Your task to perform on an android device: Clear the cart on newegg.com. Image 0: 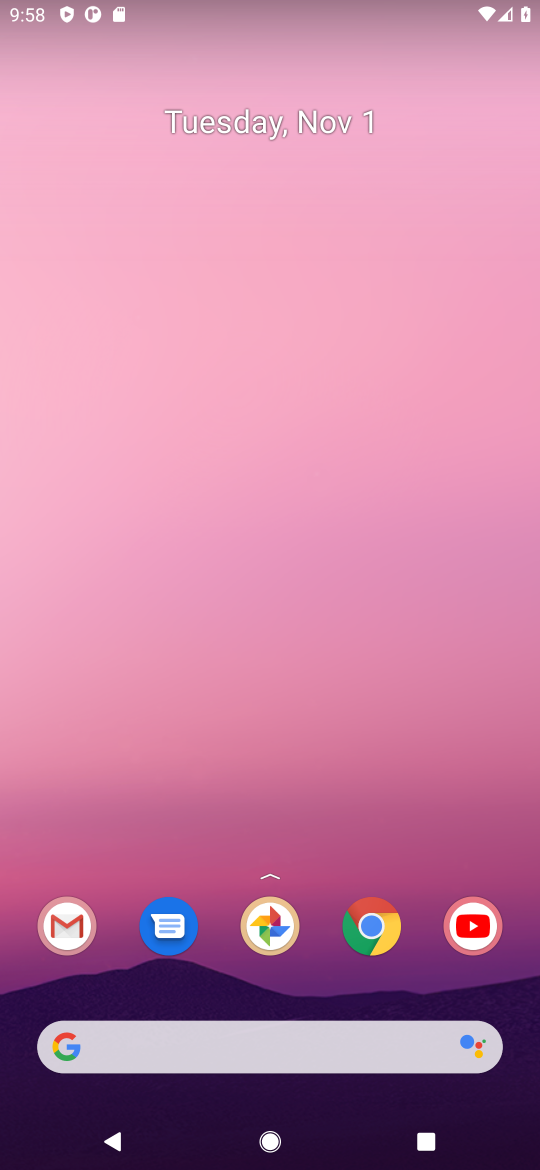
Step 0: click (360, 924)
Your task to perform on an android device: Clear the cart on newegg.com. Image 1: 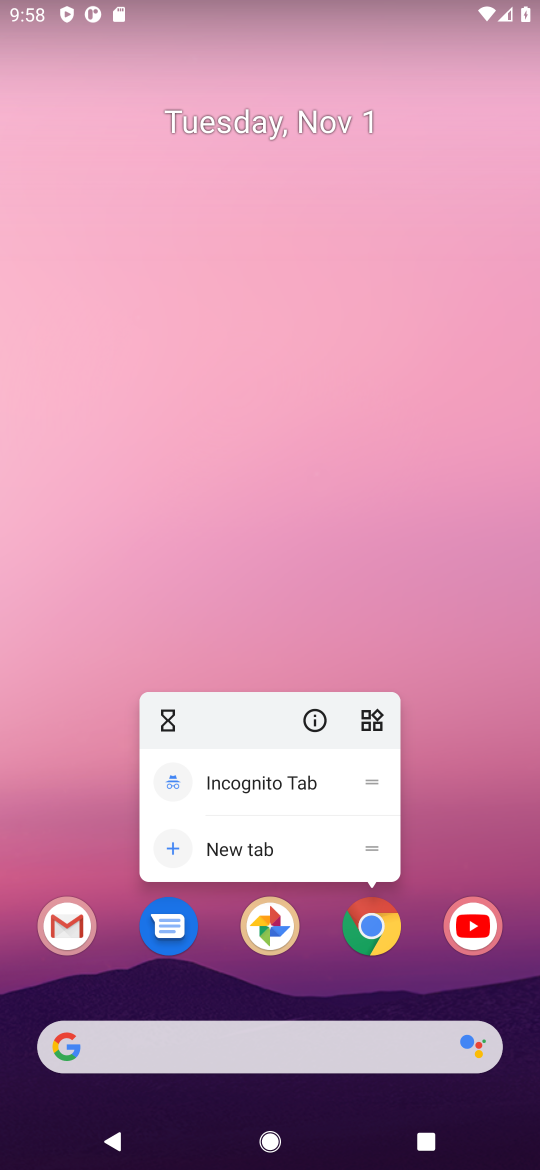
Step 1: click (362, 930)
Your task to perform on an android device: Clear the cart on newegg.com. Image 2: 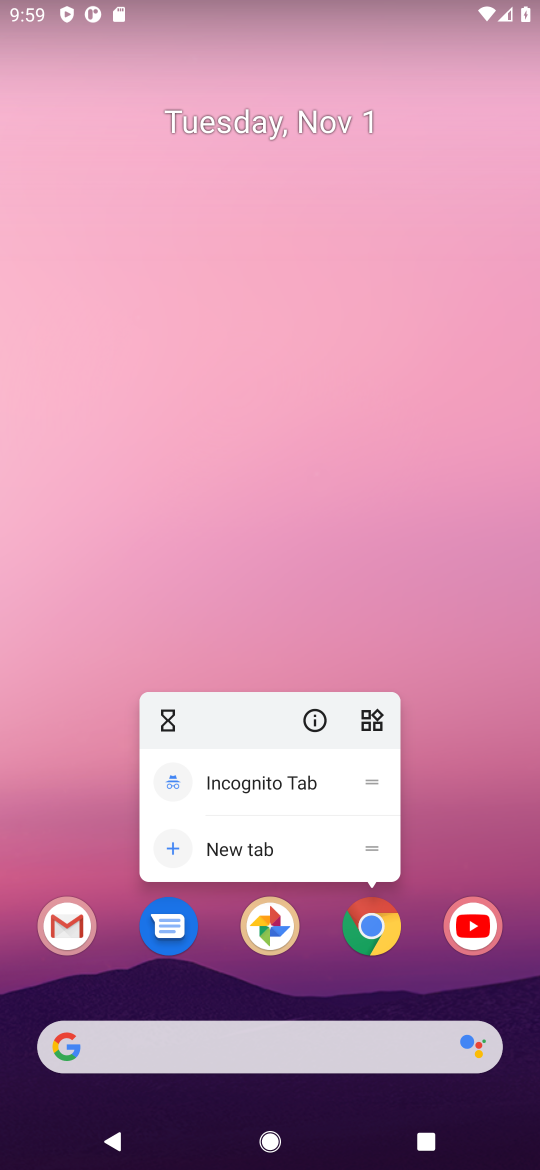
Step 2: click (359, 924)
Your task to perform on an android device: Clear the cart on newegg.com. Image 3: 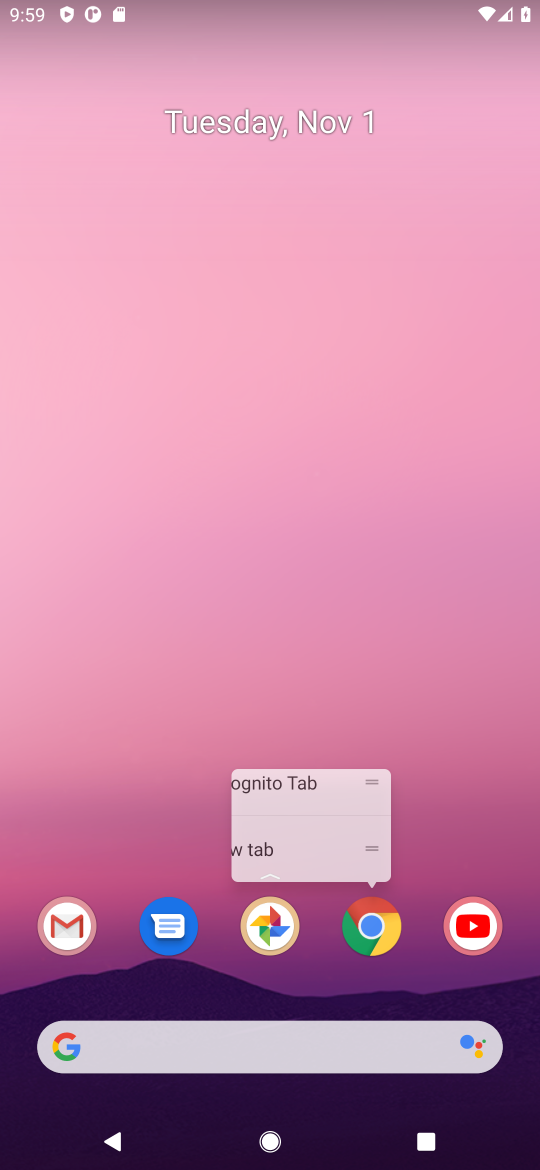
Step 3: click (364, 925)
Your task to perform on an android device: Clear the cart on newegg.com. Image 4: 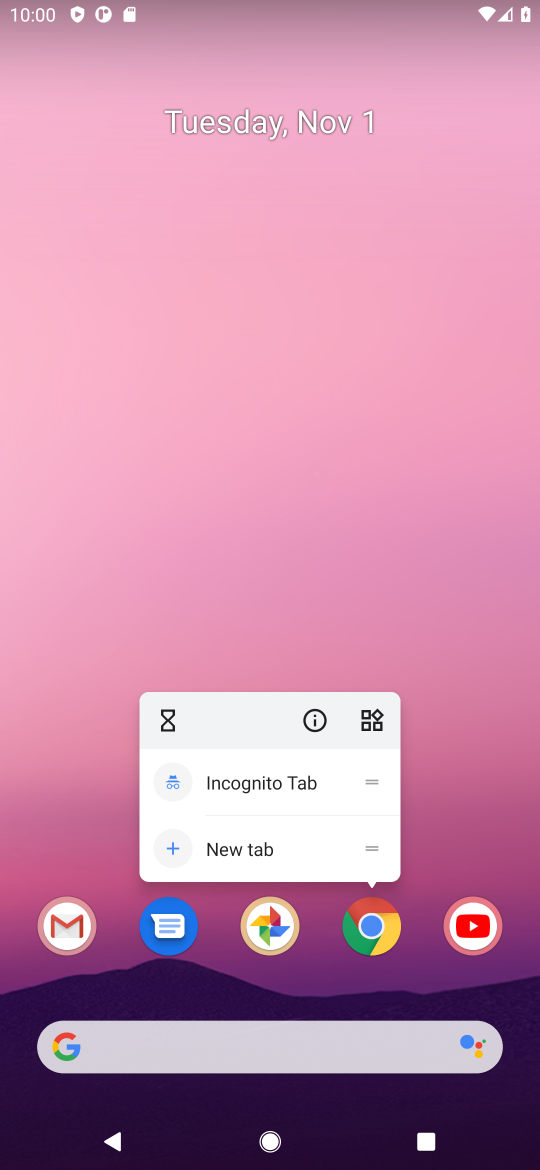
Step 4: click (176, 792)
Your task to perform on an android device: Clear the cart on newegg.com. Image 5: 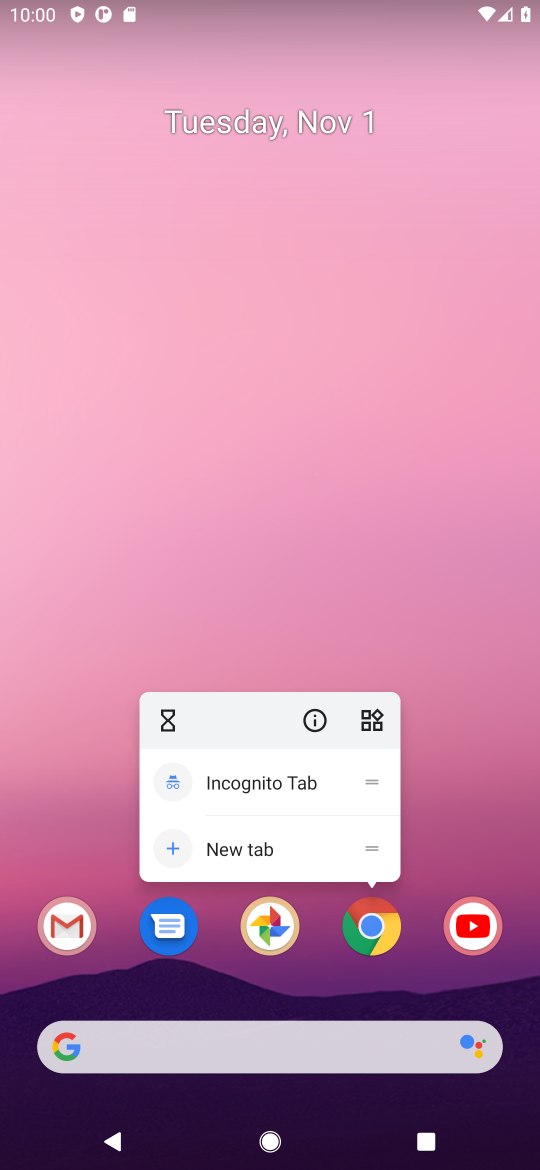
Step 5: click (370, 926)
Your task to perform on an android device: Clear the cart on newegg.com. Image 6: 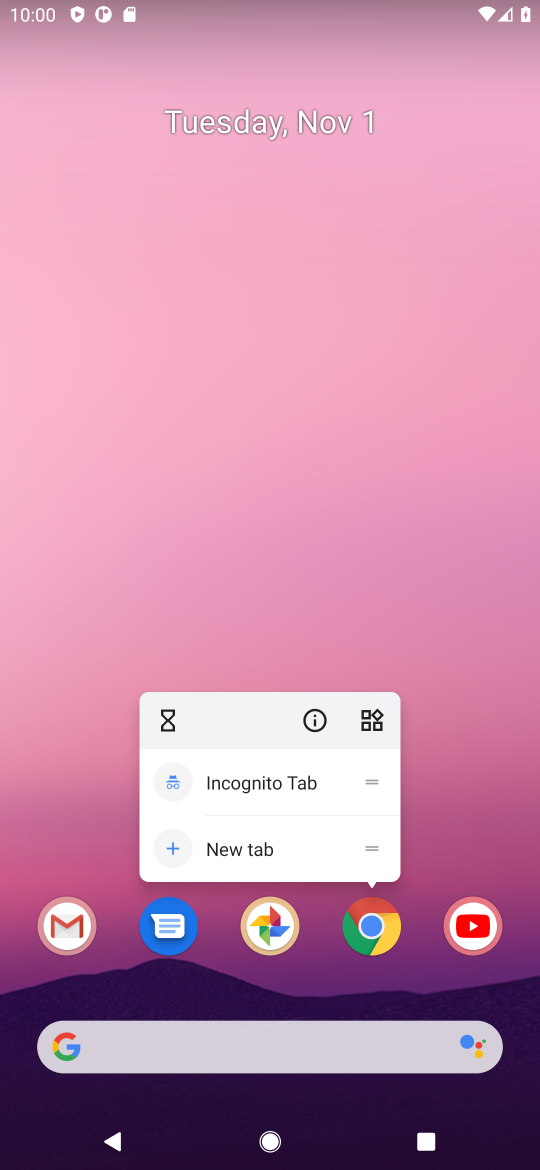
Step 6: press home button
Your task to perform on an android device: Clear the cart on newegg.com. Image 7: 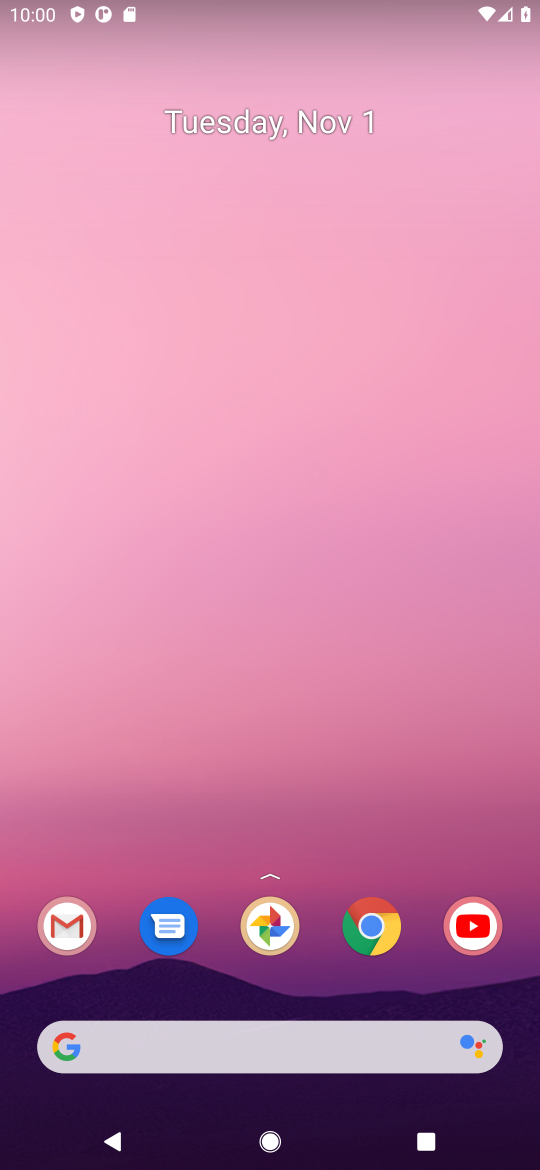
Step 7: press home button
Your task to perform on an android device: Clear the cart on newegg.com. Image 8: 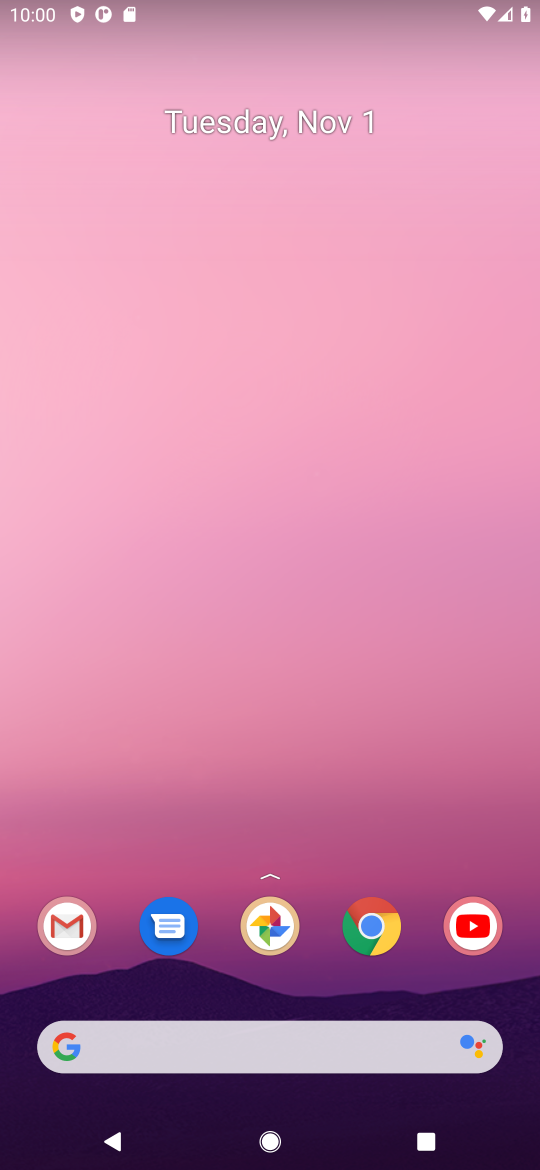
Step 8: press home button
Your task to perform on an android device: Clear the cart on newegg.com. Image 9: 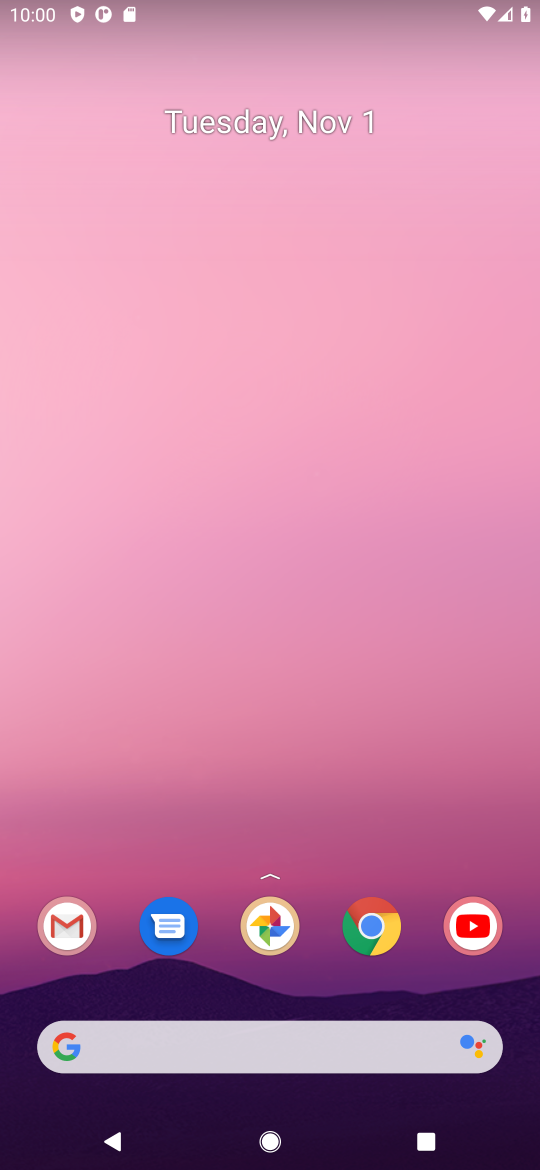
Step 9: press home button
Your task to perform on an android device: Clear the cart on newegg.com. Image 10: 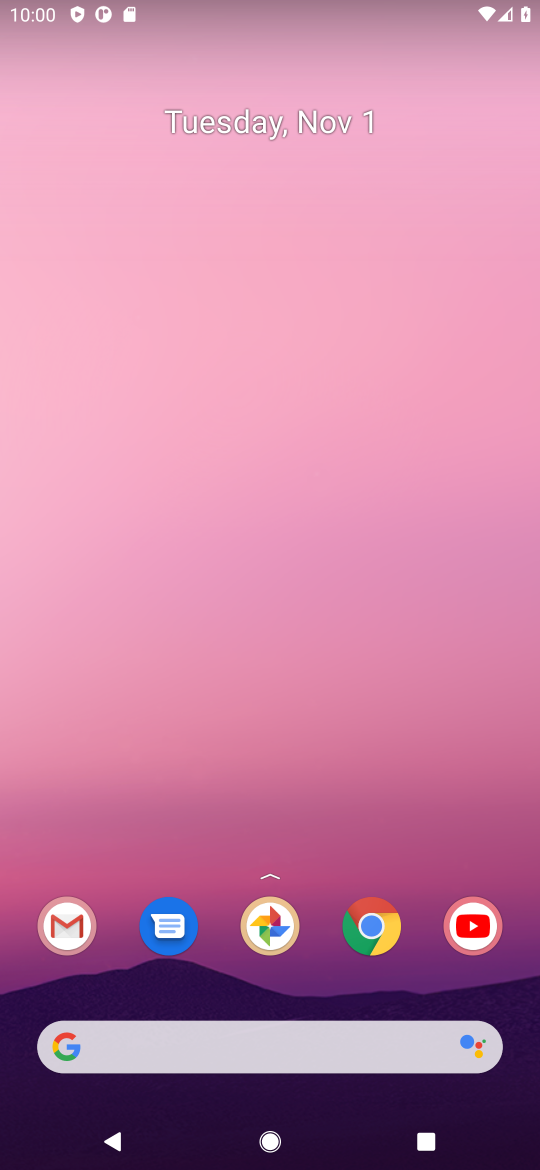
Step 10: click (382, 939)
Your task to perform on an android device: Clear the cart on newegg.com. Image 11: 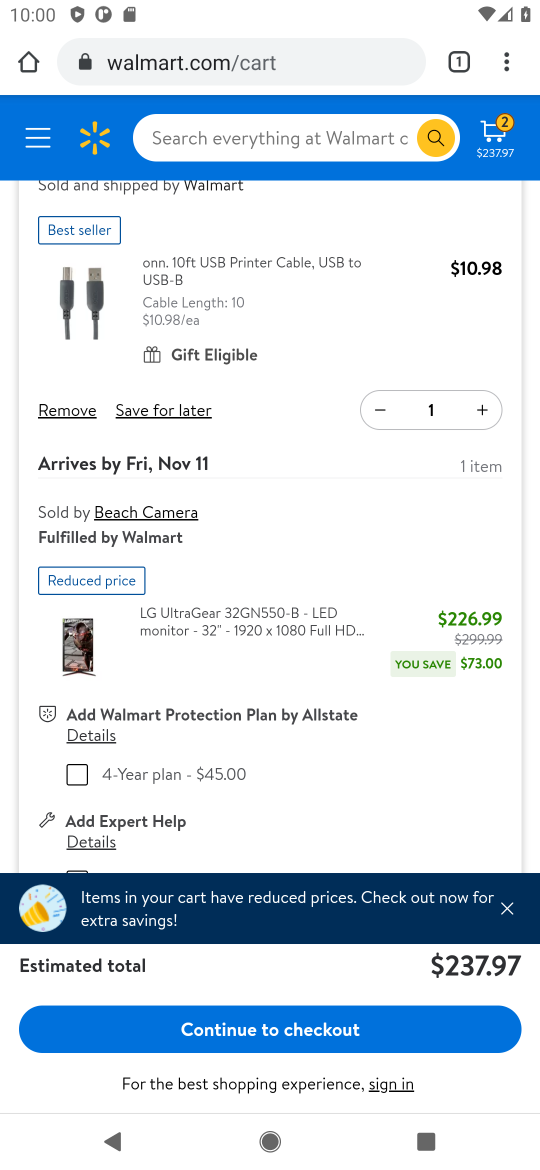
Step 11: click (161, 67)
Your task to perform on an android device: Clear the cart on newegg.com. Image 12: 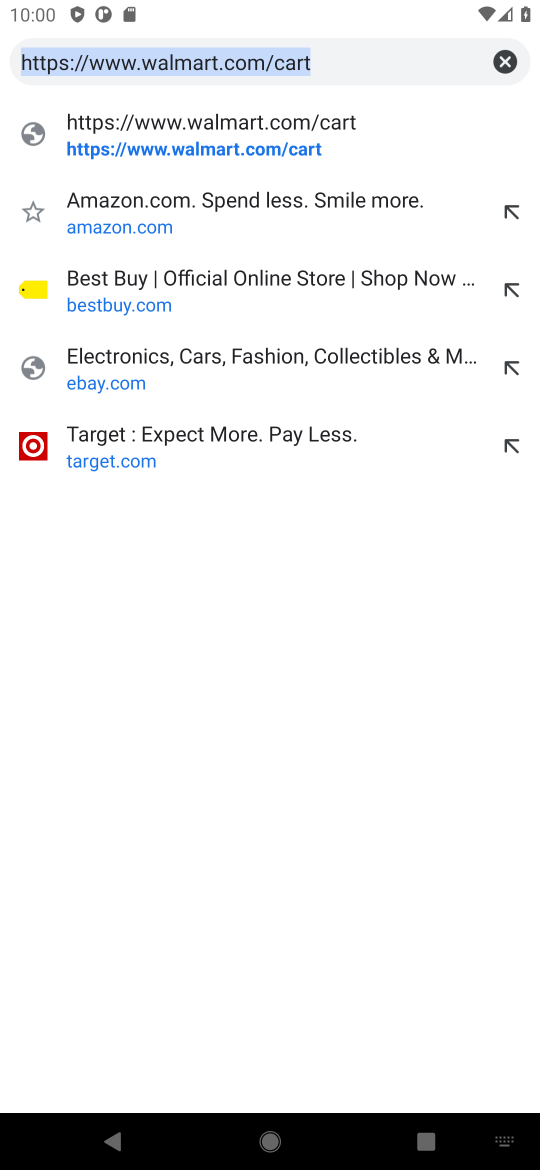
Step 12: type "newegg.com"
Your task to perform on an android device: Clear the cart on newegg.com. Image 13: 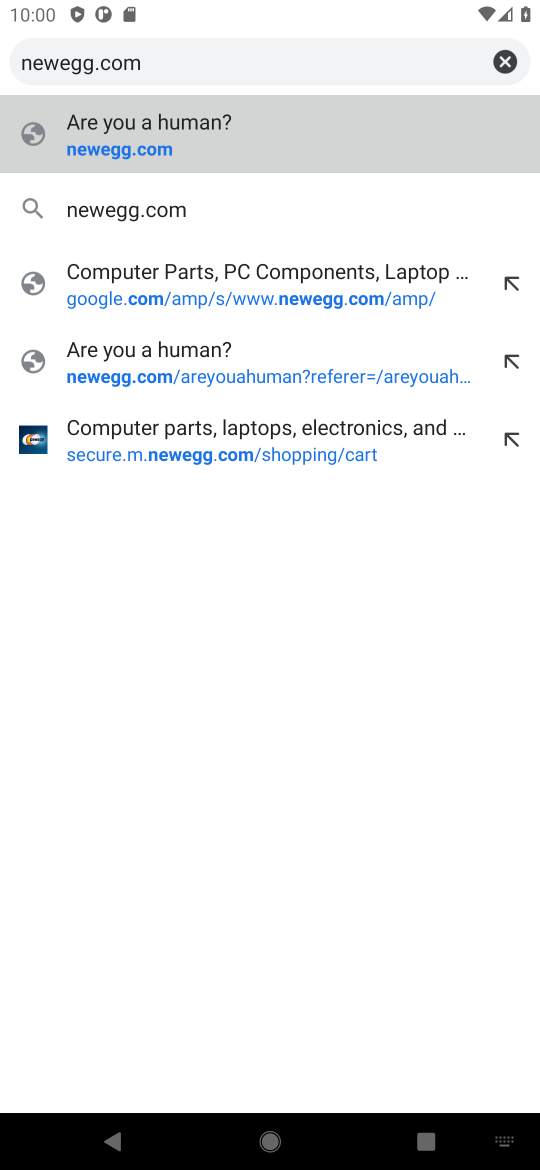
Step 13: type ""
Your task to perform on an android device: Clear the cart on newegg.com. Image 14: 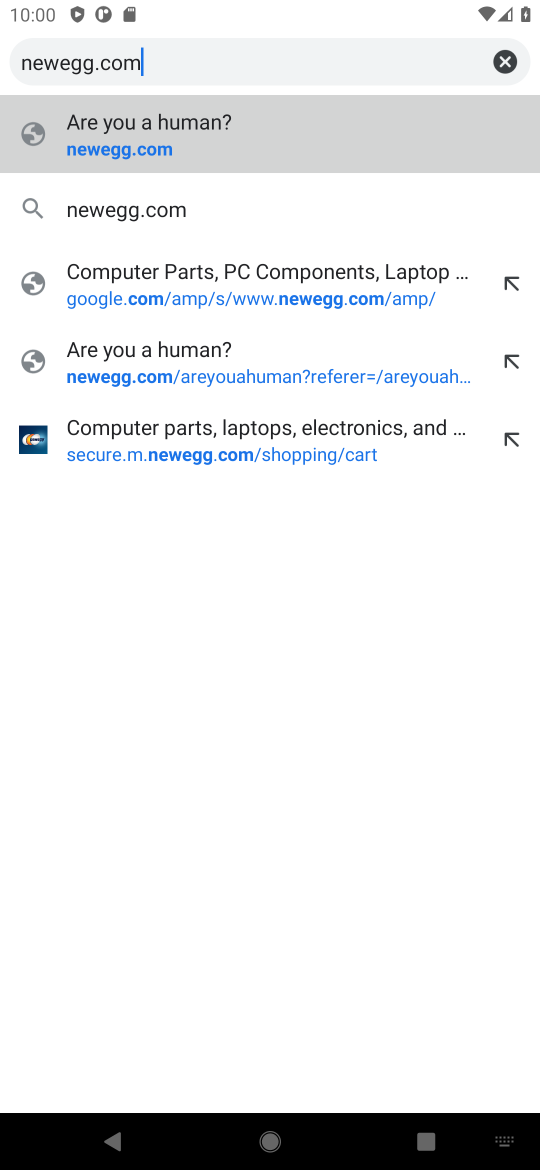
Step 14: click (119, 466)
Your task to perform on an android device: Clear the cart on newegg.com. Image 15: 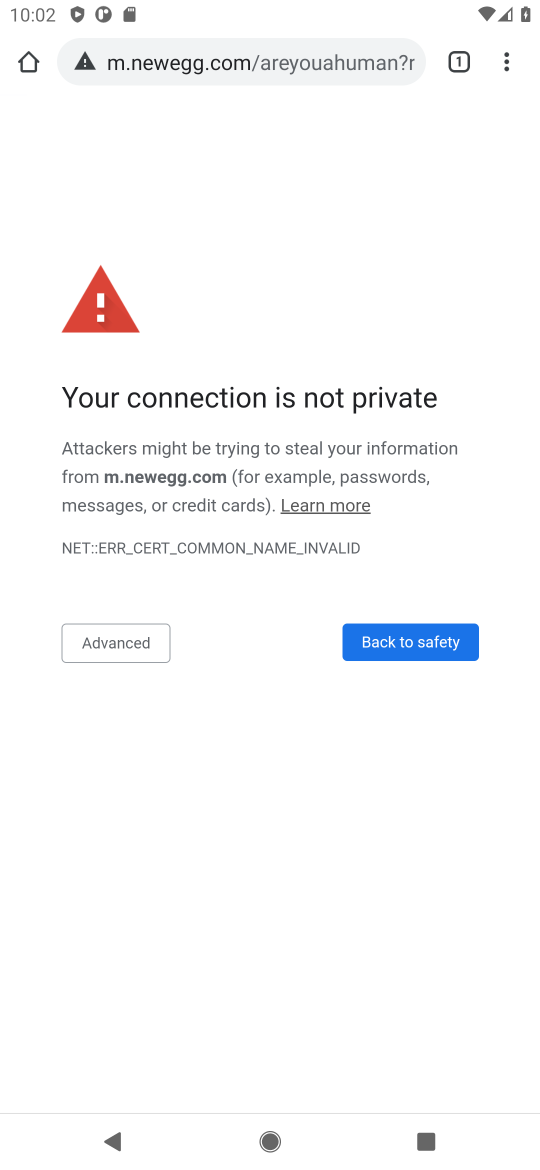
Step 15: press home button
Your task to perform on an android device: Clear the cart on newegg.com. Image 16: 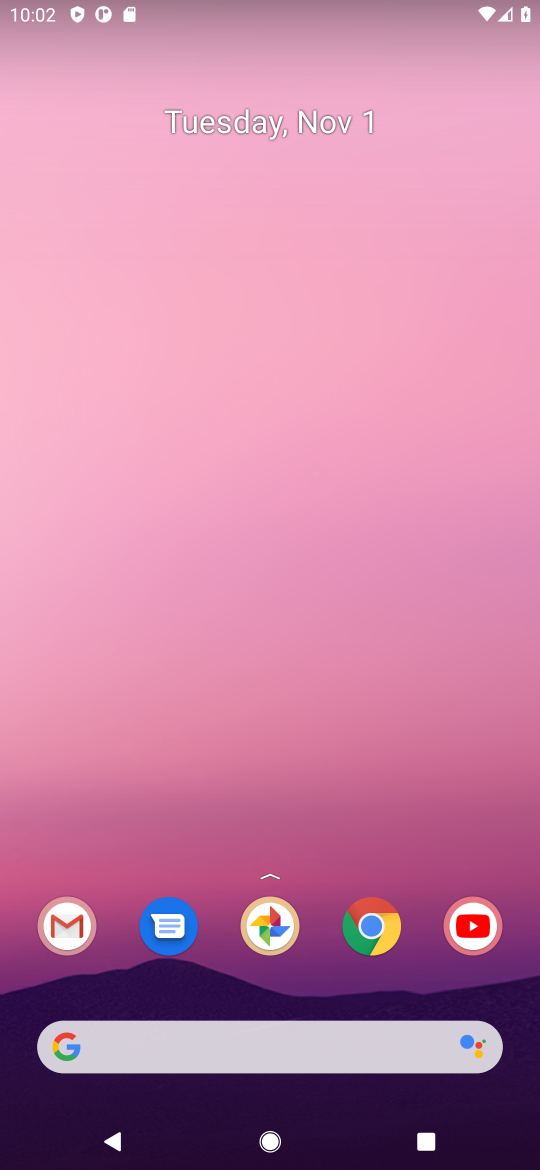
Step 16: click (356, 920)
Your task to perform on an android device: Clear the cart on newegg.com. Image 17: 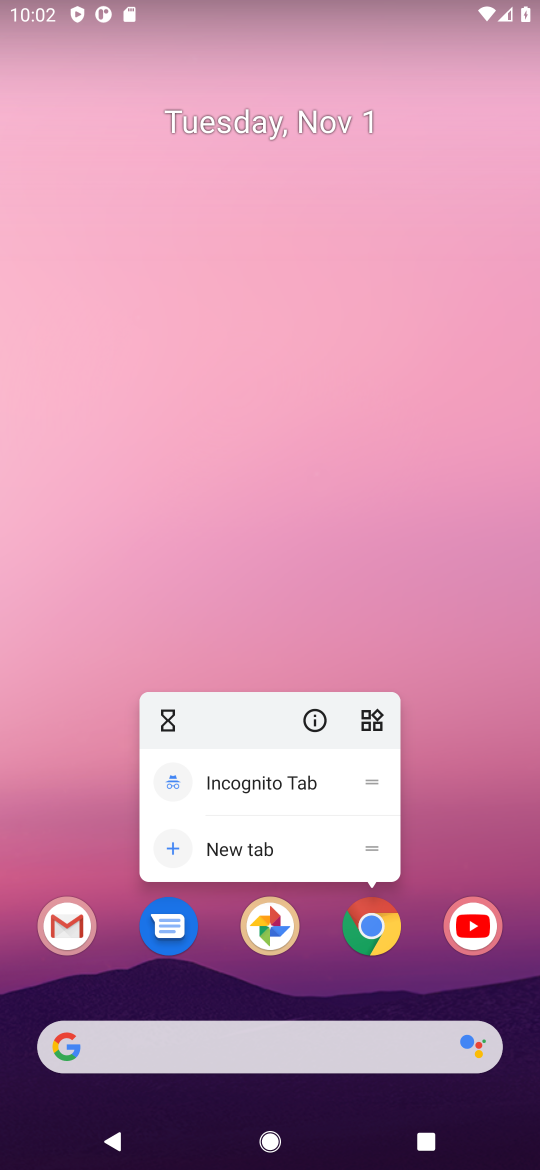
Step 17: click (375, 937)
Your task to perform on an android device: Clear the cart on newegg.com. Image 18: 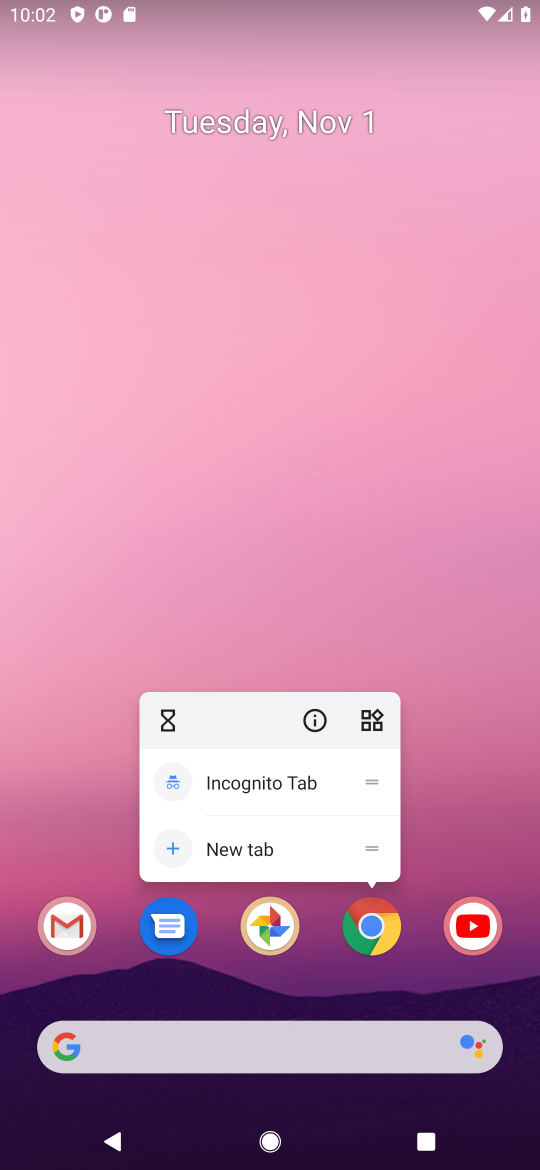
Step 18: click (357, 934)
Your task to perform on an android device: Clear the cart on newegg.com. Image 19: 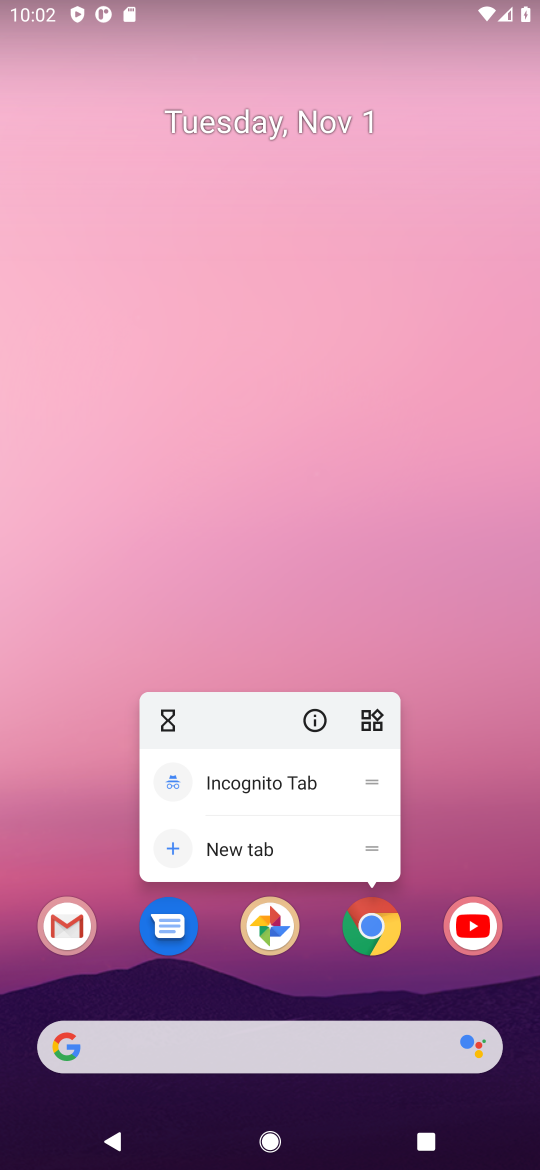
Step 19: click (367, 927)
Your task to perform on an android device: Clear the cart on newegg.com. Image 20: 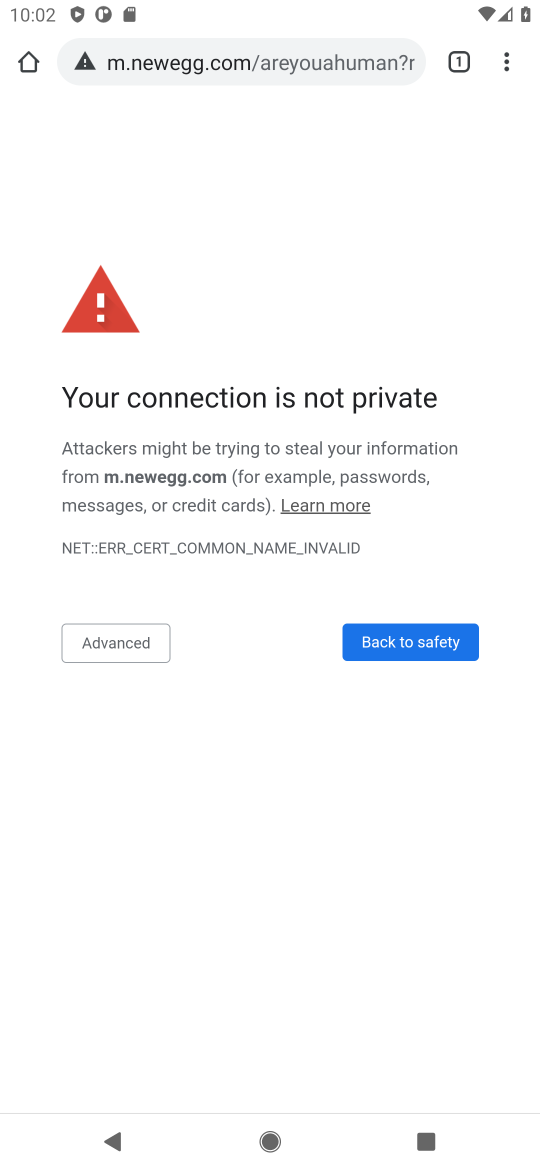
Step 20: click (270, 68)
Your task to perform on an android device: Clear the cart on newegg.com. Image 21: 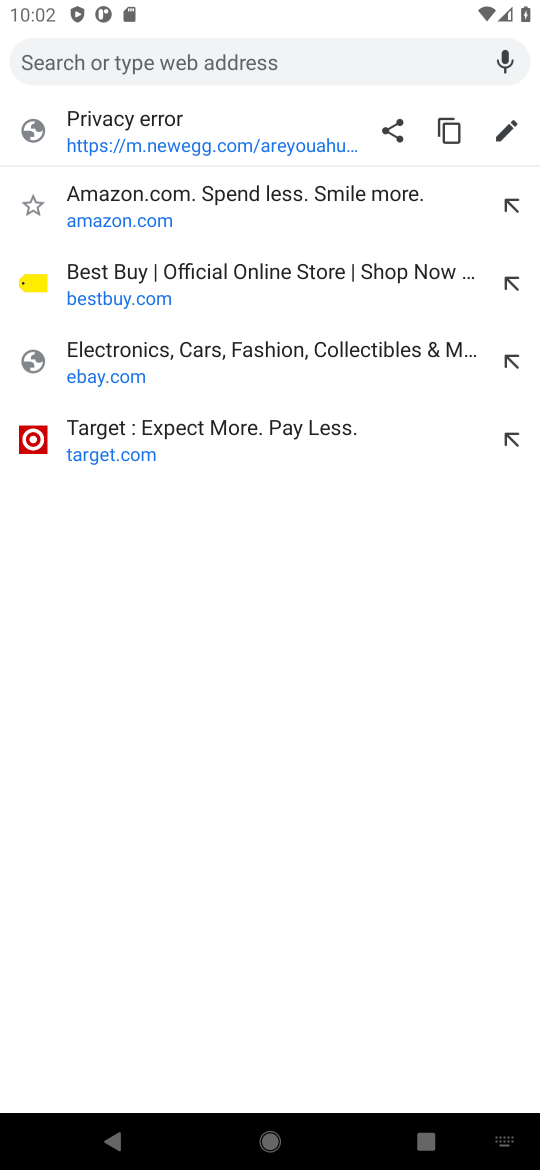
Step 21: type "newegg.com"
Your task to perform on an android device: Clear the cart on newegg.com. Image 22: 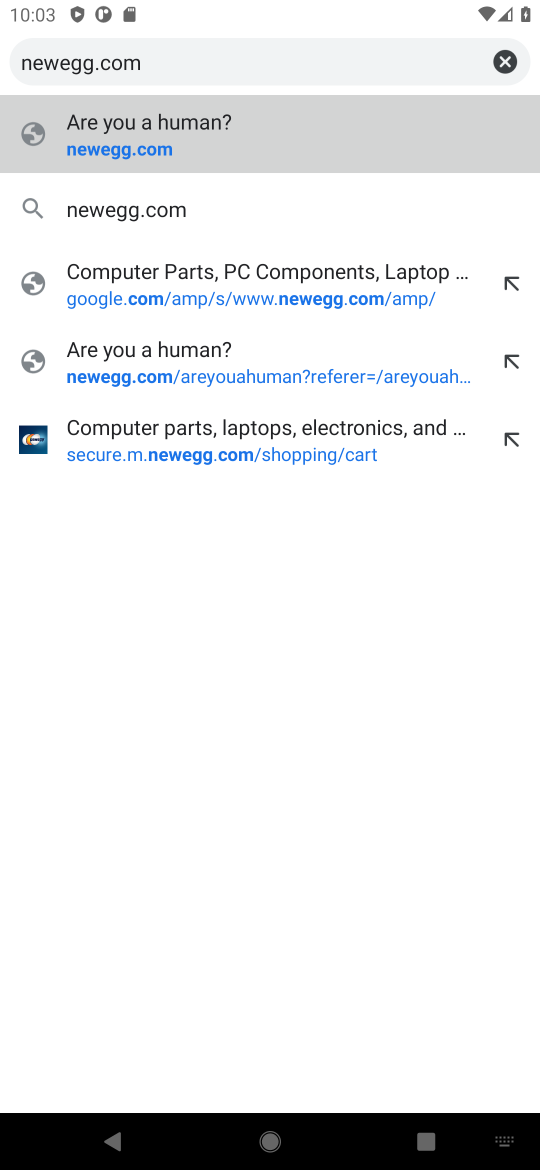
Step 22: click (121, 427)
Your task to perform on an android device: Clear the cart on newegg.com. Image 23: 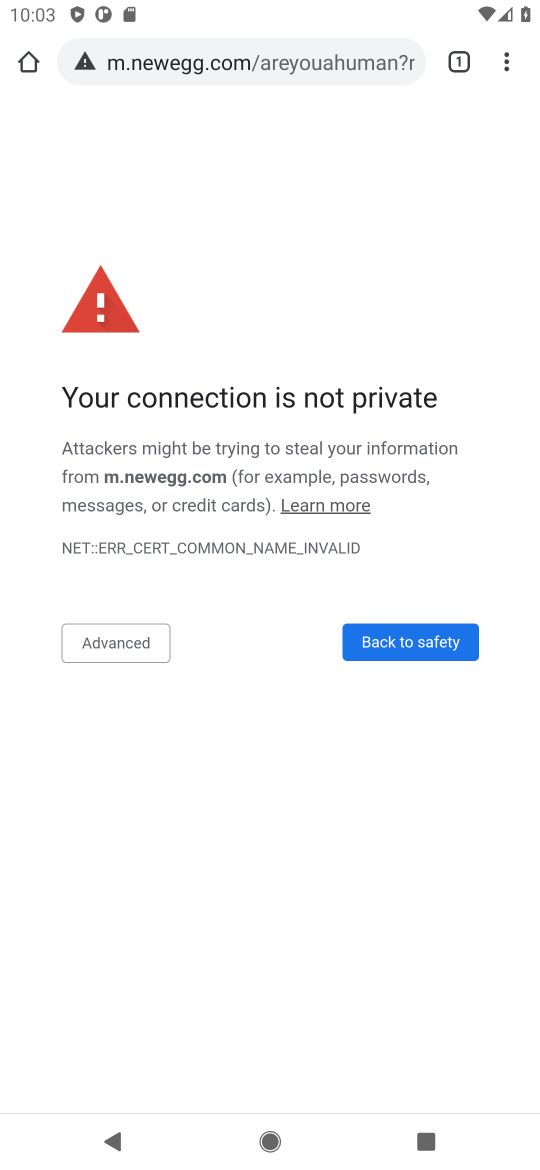
Step 23: task complete